Your task to perform on an android device: add a contact in the contacts app Image 0: 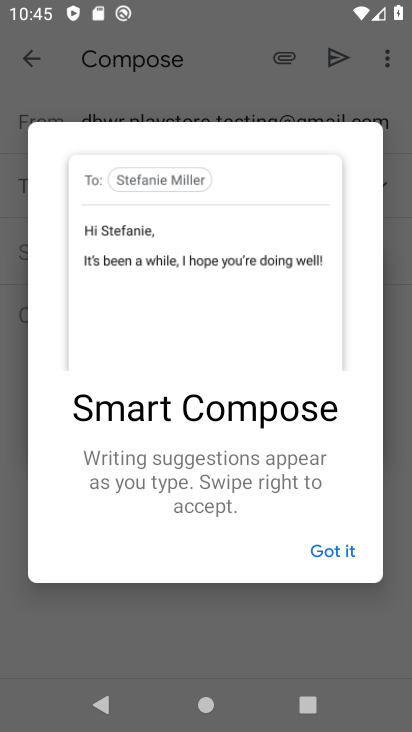
Step 0: press home button
Your task to perform on an android device: add a contact in the contacts app Image 1: 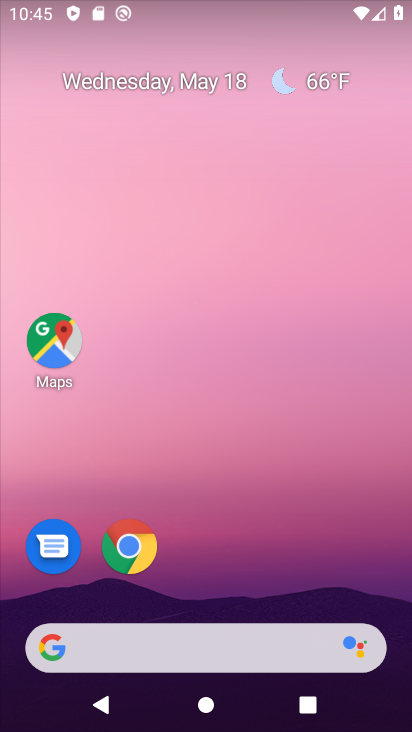
Step 1: drag from (242, 728) to (257, 204)
Your task to perform on an android device: add a contact in the contacts app Image 2: 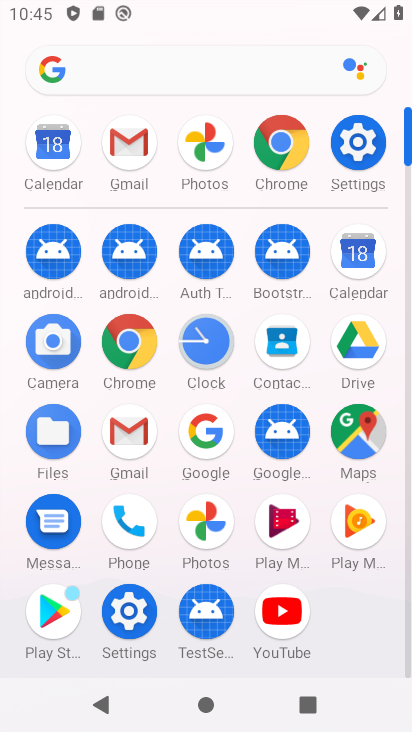
Step 2: click (292, 350)
Your task to perform on an android device: add a contact in the contacts app Image 3: 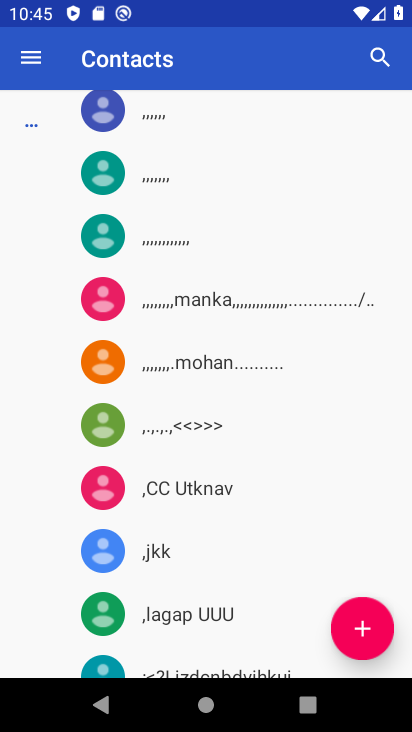
Step 3: click (363, 629)
Your task to perform on an android device: add a contact in the contacts app Image 4: 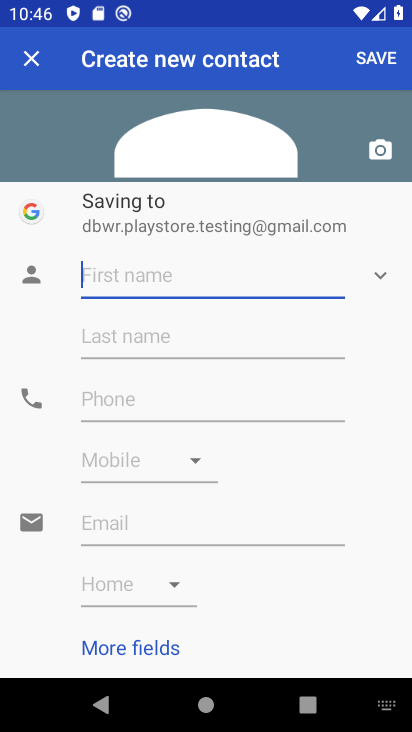
Step 4: type "achuk"
Your task to perform on an android device: add a contact in the contacts app Image 5: 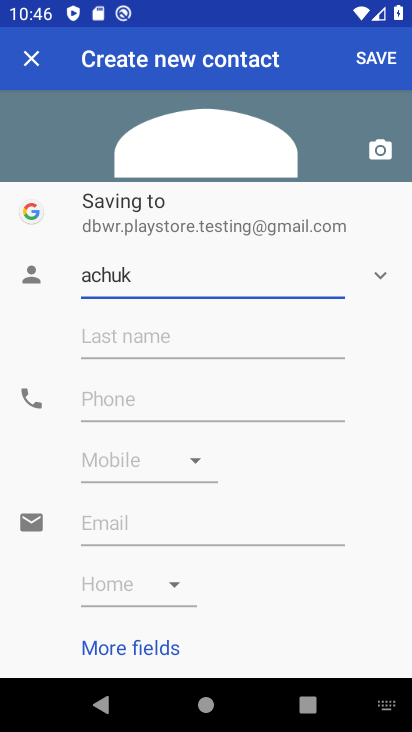
Step 5: click (144, 400)
Your task to perform on an android device: add a contact in the contacts app Image 6: 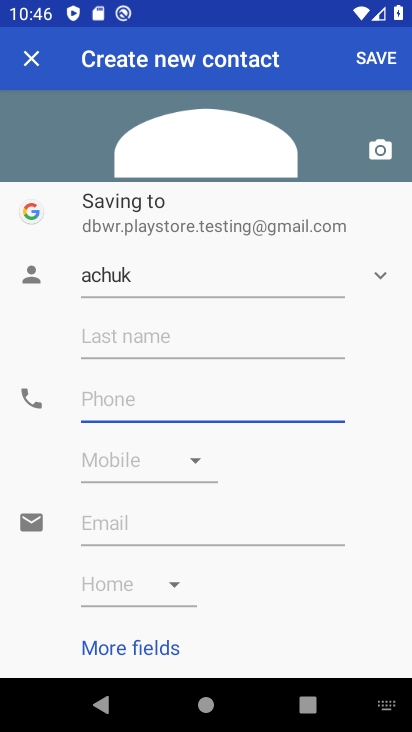
Step 6: type "8888"
Your task to perform on an android device: add a contact in the contacts app Image 7: 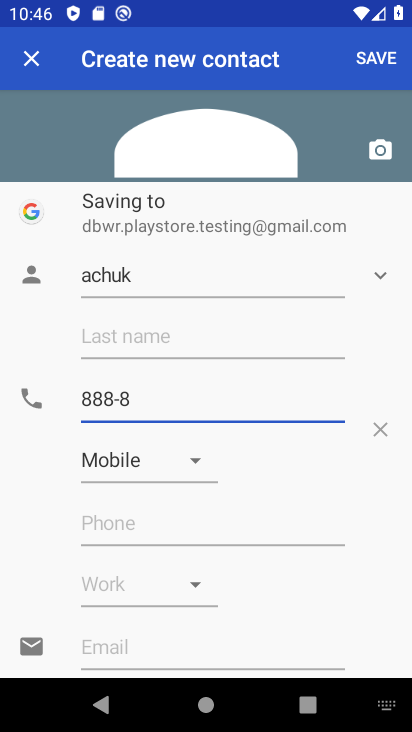
Step 7: click (372, 58)
Your task to perform on an android device: add a contact in the contacts app Image 8: 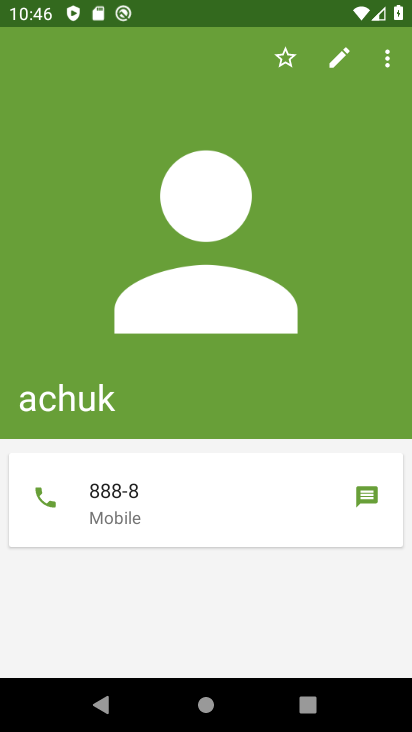
Step 8: task complete